Your task to perform on an android device: search for starred emails in the gmail app Image 0: 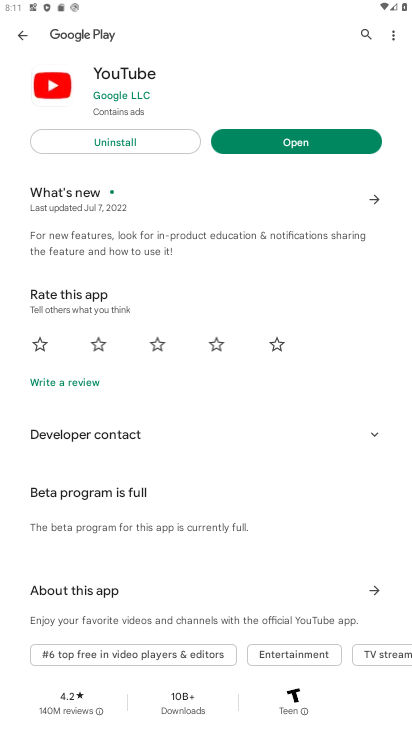
Step 0: press home button
Your task to perform on an android device: search for starred emails in the gmail app Image 1: 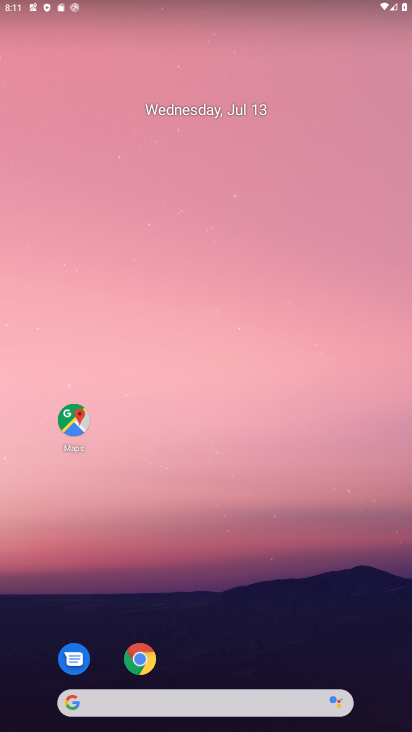
Step 1: drag from (209, 645) to (209, 184)
Your task to perform on an android device: search for starred emails in the gmail app Image 2: 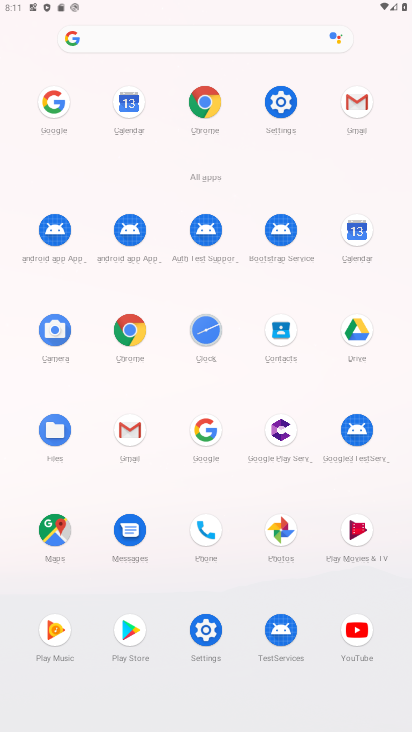
Step 2: click (361, 101)
Your task to perform on an android device: search for starred emails in the gmail app Image 3: 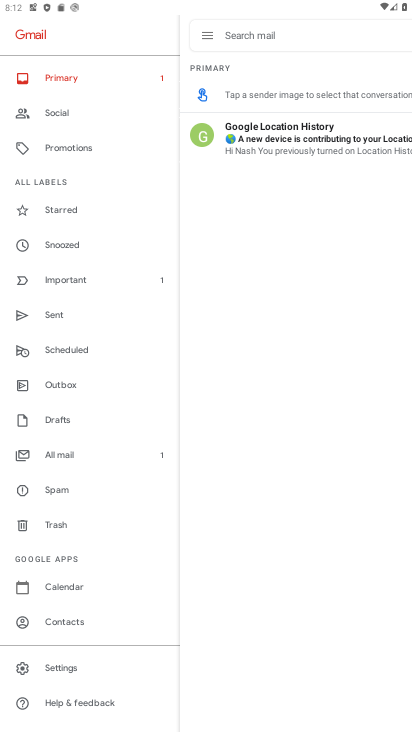
Step 3: click (70, 213)
Your task to perform on an android device: search for starred emails in the gmail app Image 4: 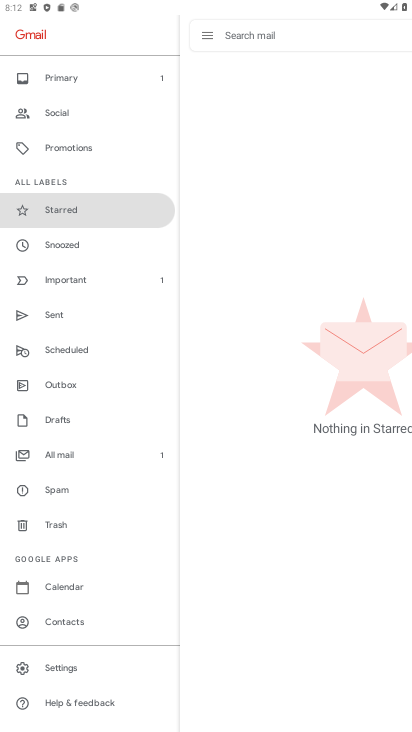
Step 4: task complete